Your task to perform on an android device: Go to Google maps Image 0: 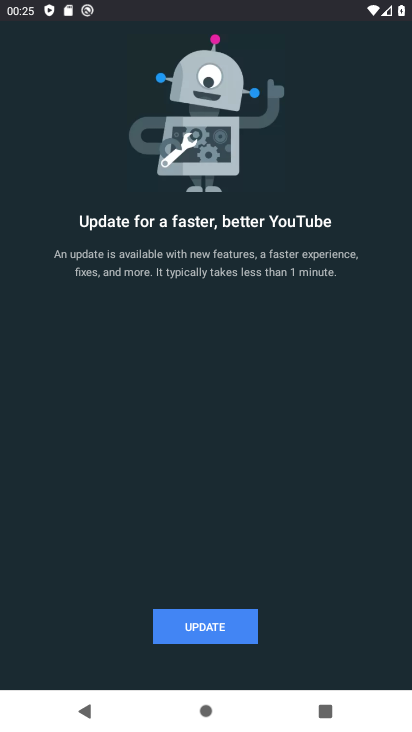
Step 0: press home button
Your task to perform on an android device: Go to Google maps Image 1: 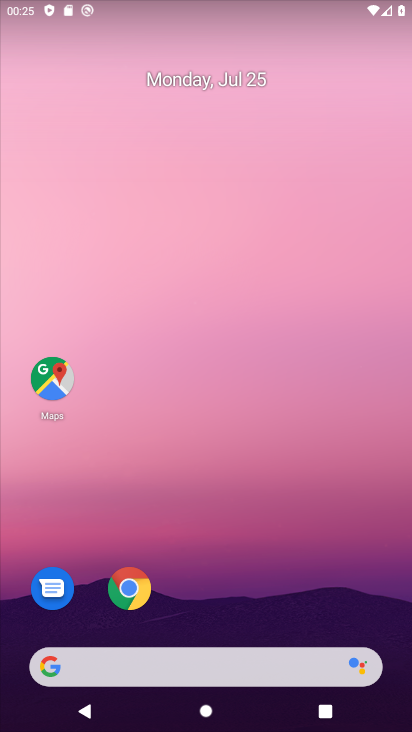
Step 1: drag from (255, 627) to (223, 11)
Your task to perform on an android device: Go to Google maps Image 2: 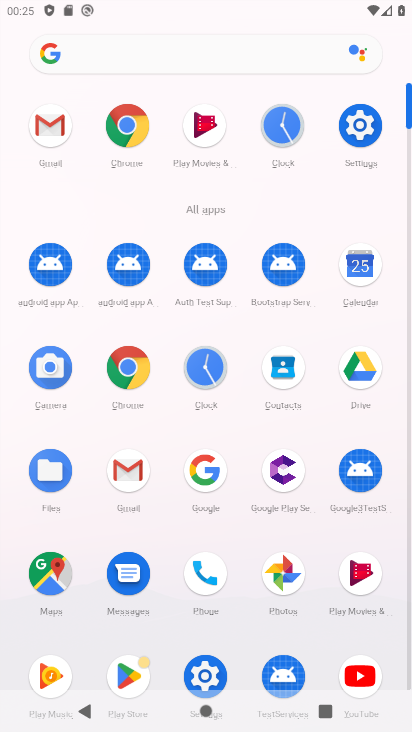
Step 2: click (61, 562)
Your task to perform on an android device: Go to Google maps Image 3: 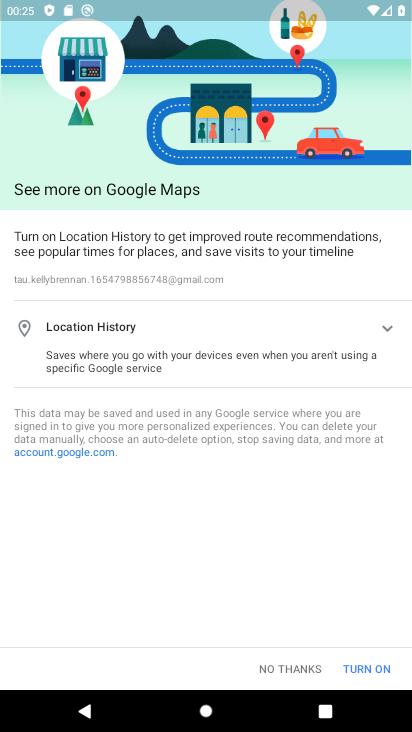
Step 3: click (295, 671)
Your task to perform on an android device: Go to Google maps Image 4: 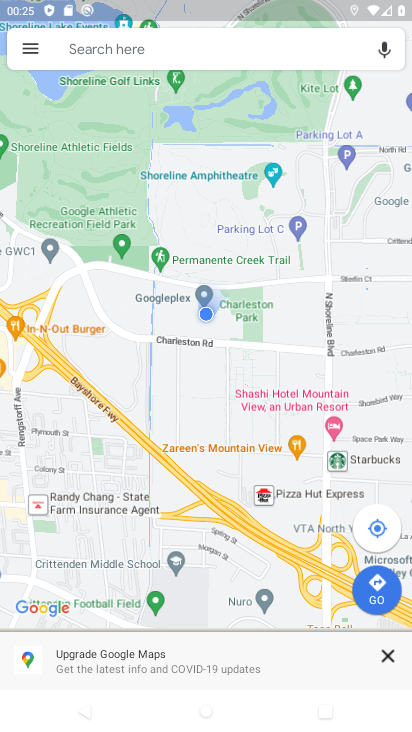
Step 4: click (389, 649)
Your task to perform on an android device: Go to Google maps Image 5: 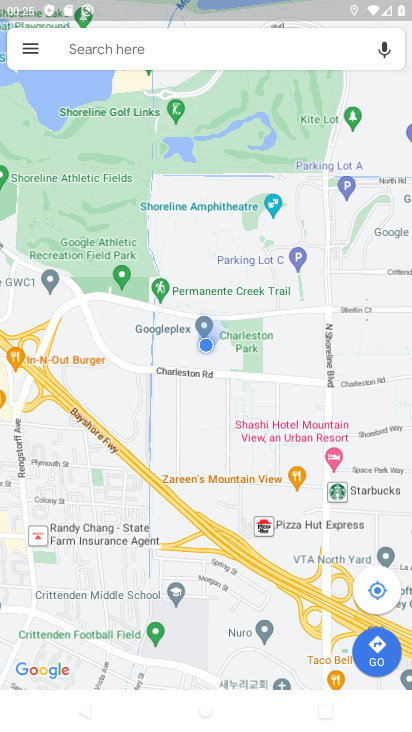
Step 5: task complete